Your task to perform on an android device: Open the stopwatch Image 0: 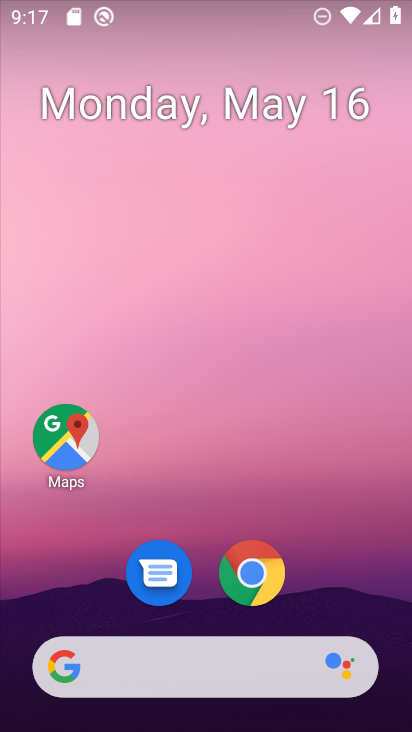
Step 0: drag from (359, 621) to (379, 238)
Your task to perform on an android device: Open the stopwatch Image 1: 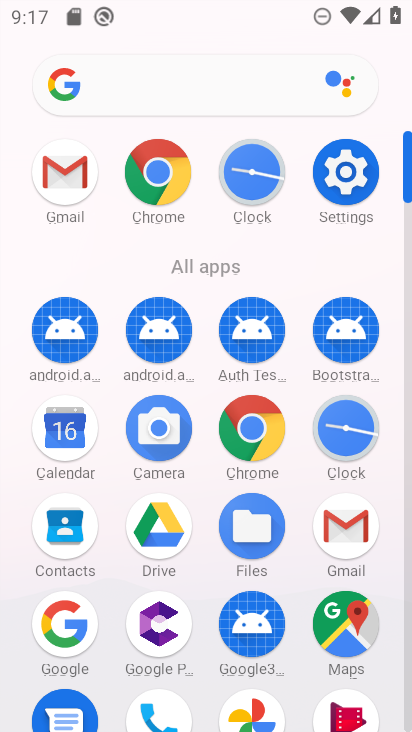
Step 1: click (338, 428)
Your task to perform on an android device: Open the stopwatch Image 2: 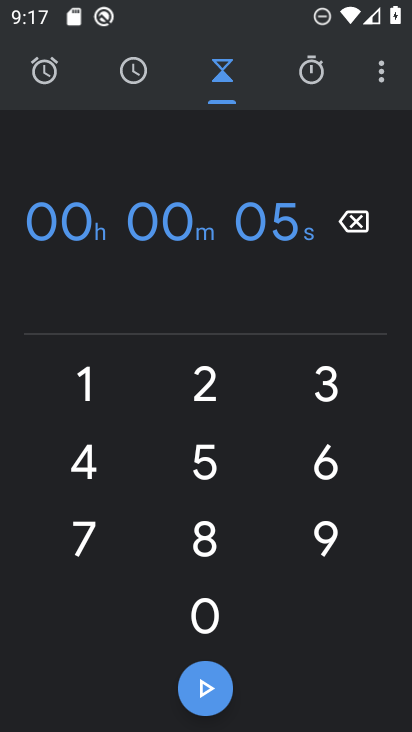
Step 2: click (327, 23)
Your task to perform on an android device: Open the stopwatch Image 3: 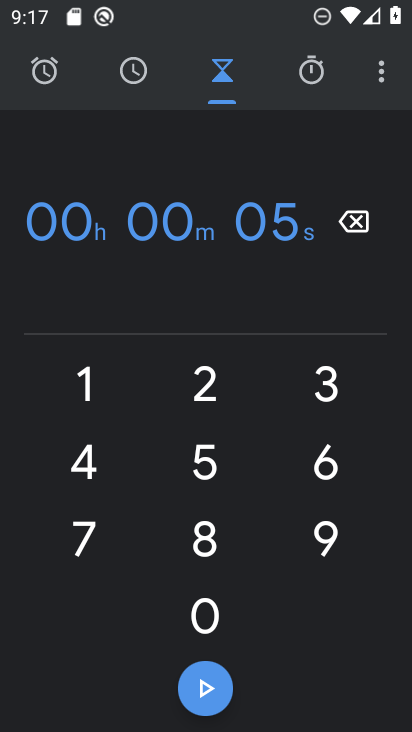
Step 3: click (315, 54)
Your task to perform on an android device: Open the stopwatch Image 4: 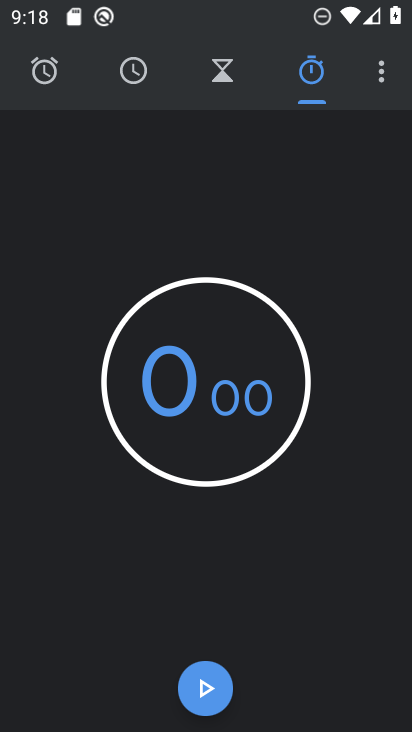
Step 4: task complete